Your task to perform on an android device: What's a goodrestaurant in Austin? Image 0: 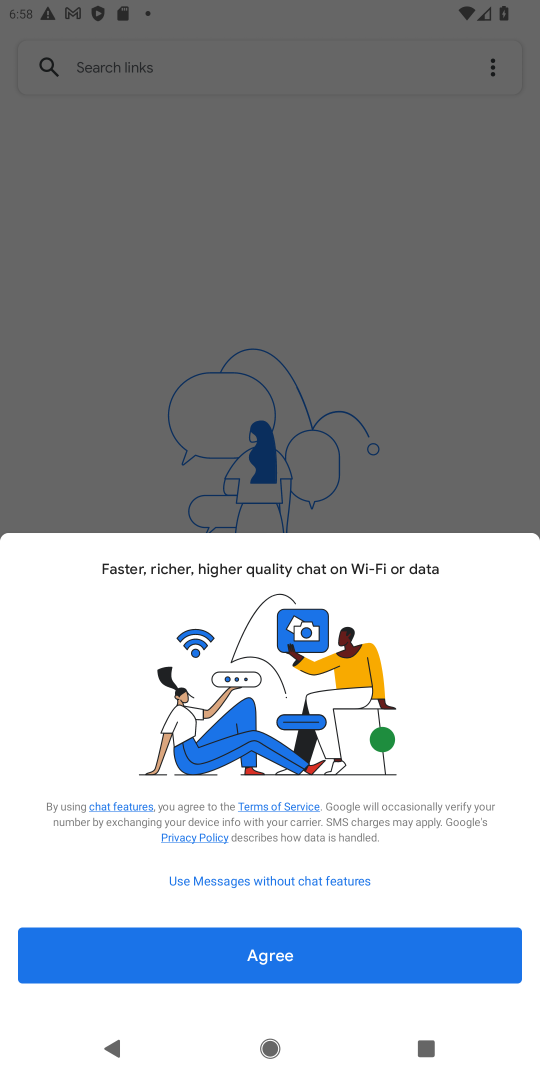
Step 0: press home button
Your task to perform on an android device: What's a goodrestaurant in Austin? Image 1: 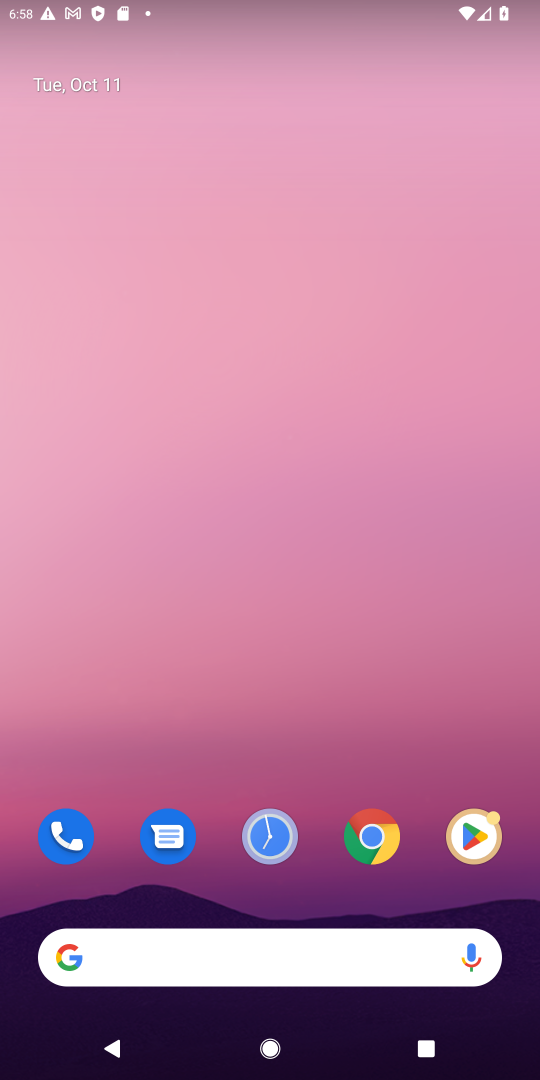
Step 1: click (370, 840)
Your task to perform on an android device: What's a goodrestaurant in Austin? Image 2: 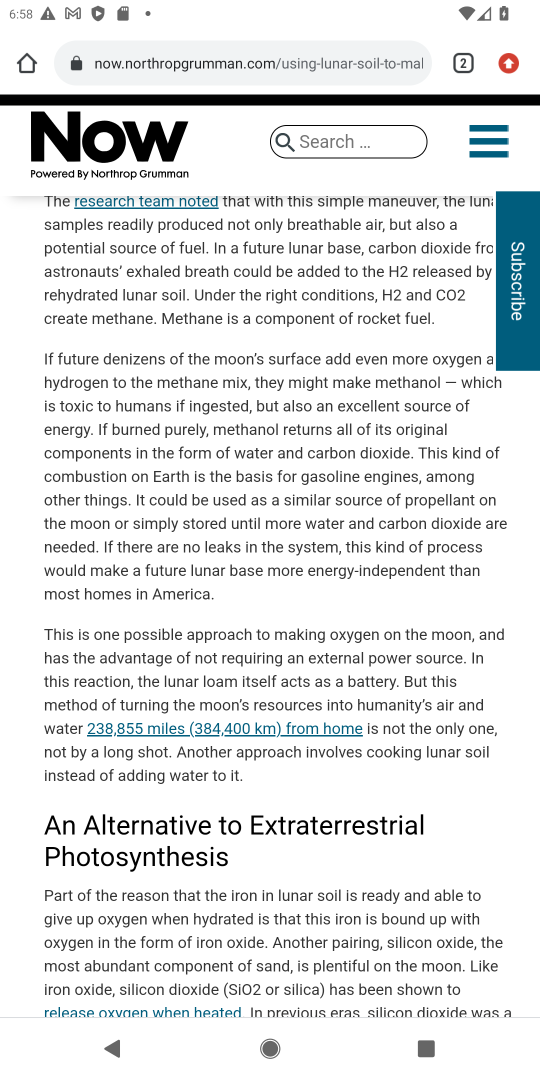
Step 2: click (232, 47)
Your task to perform on an android device: What's a goodrestaurant in Austin? Image 3: 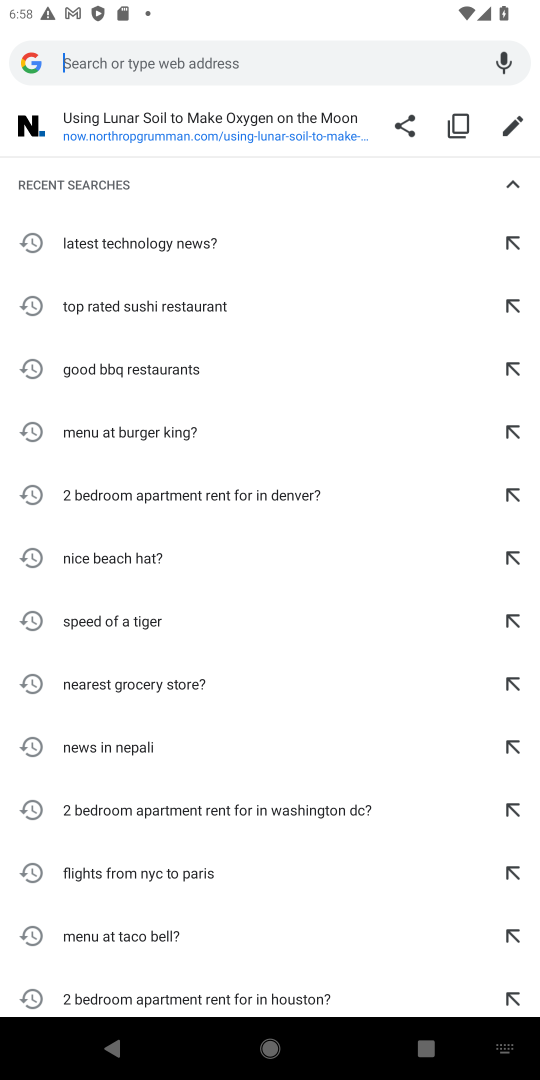
Step 3: type "goodrestaurant in Austin?"
Your task to perform on an android device: What's a goodrestaurant in Austin? Image 4: 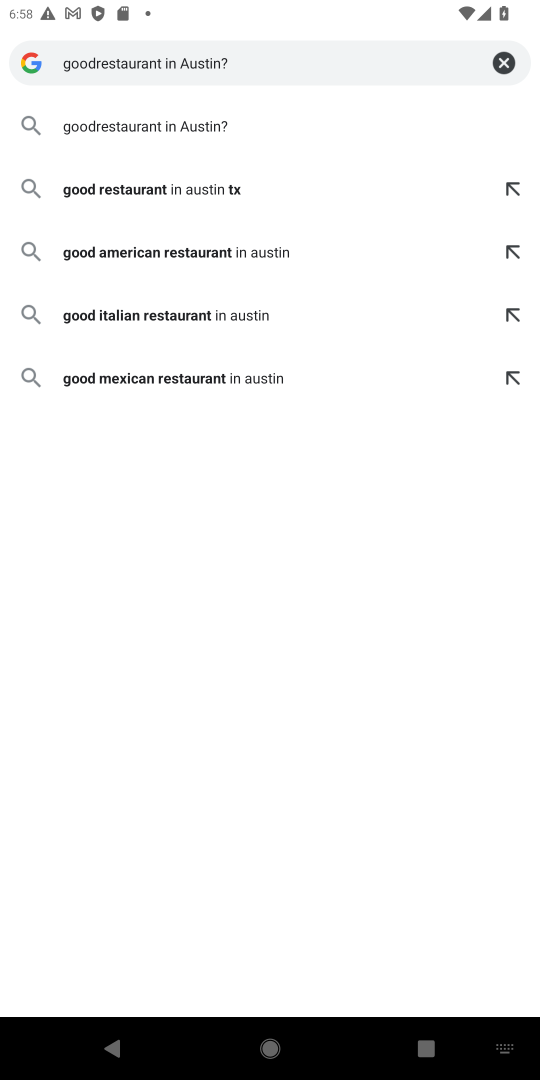
Step 4: click (151, 116)
Your task to perform on an android device: What's a goodrestaurant in Austin? Image 5: 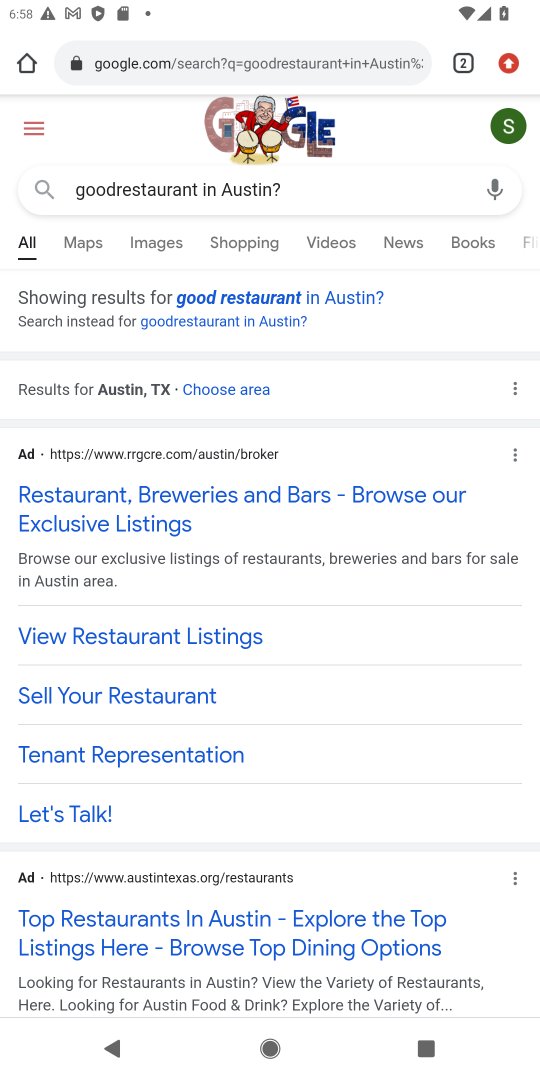
Step 5: click (291, 290)
Your task to perform on an android device: What's a goodrestaurant in Austin? Image 6: 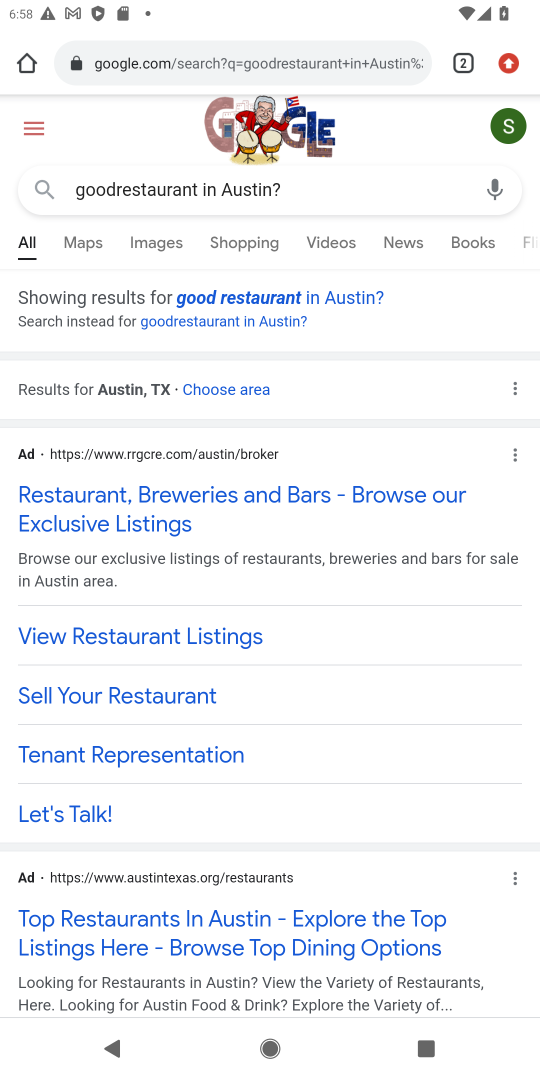
Step 6: click (289, 291)
Your task to perform on an android device: What's a goodrestaurant in Austin? Image 7: 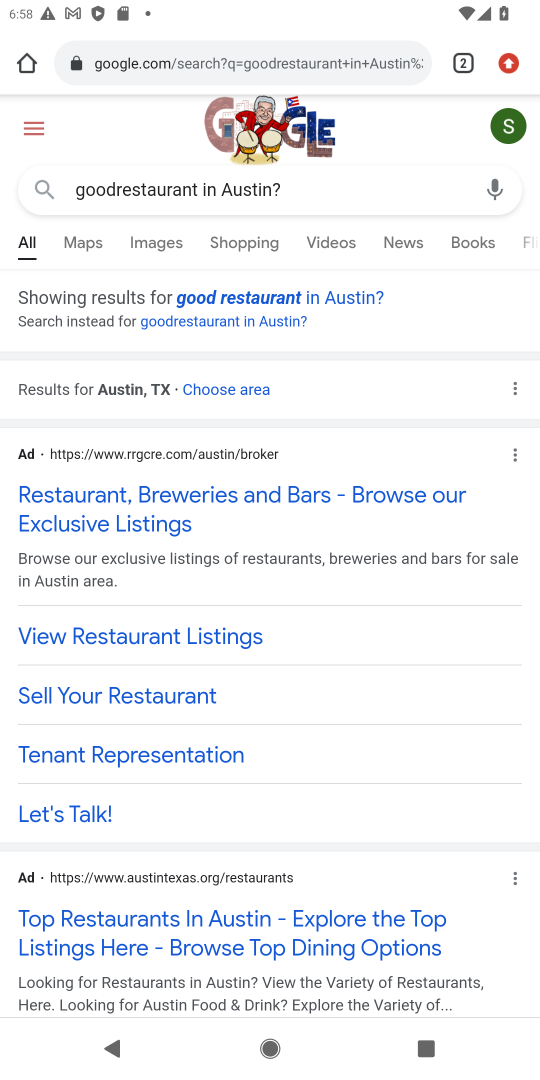
Step 7: click (246, 294)
Your task to perform on an android device: What's a goodrestaurant in Austin? Image 8: 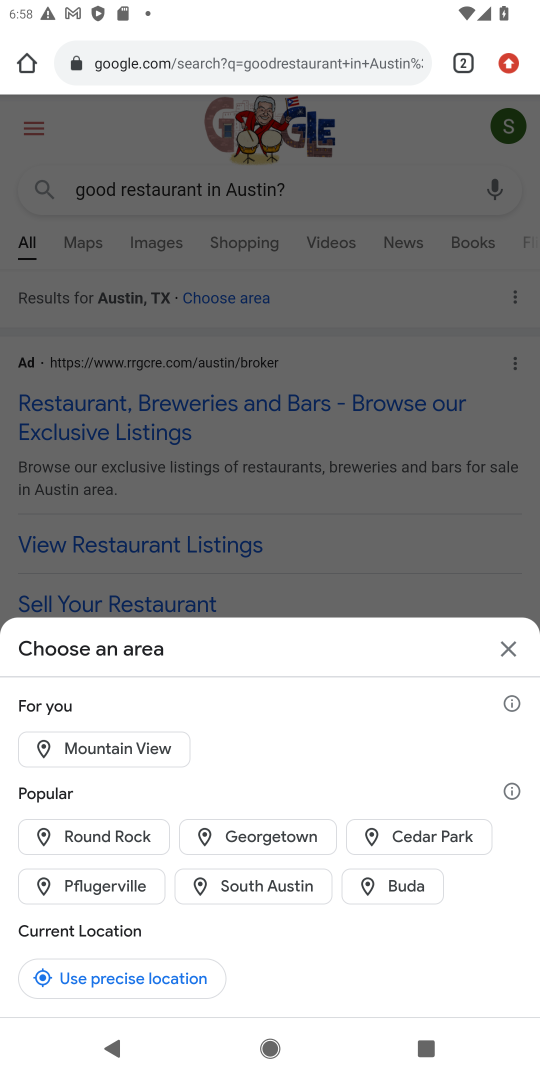
Step 8: click (507, 642)
Your task to perform on an android device: What's a goodrestaurant in Austin? Image 9: 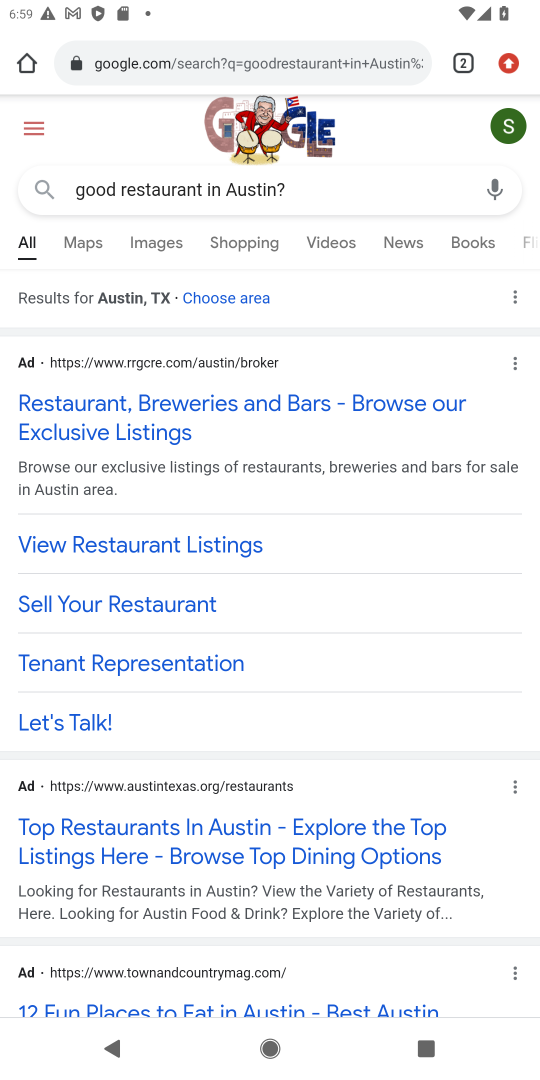
Step 9: click (194, 844)
Your task to perform on an android device: What's a goodrestaurant in Austin? Image 10: 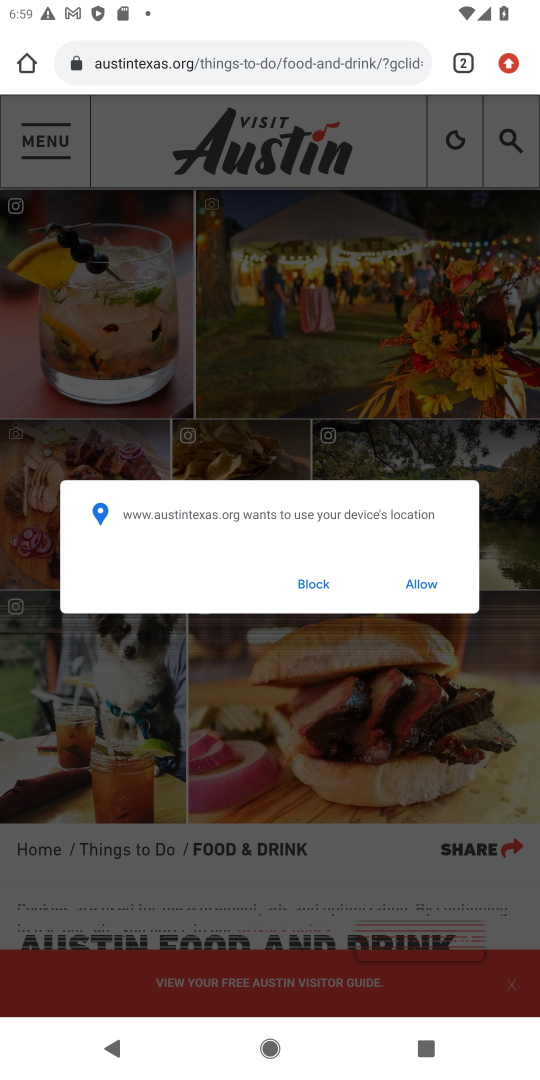
Step 10: click (304, 578)
Your task to perform on an android device: What's a goodrestaurant in Austin? Image 11: 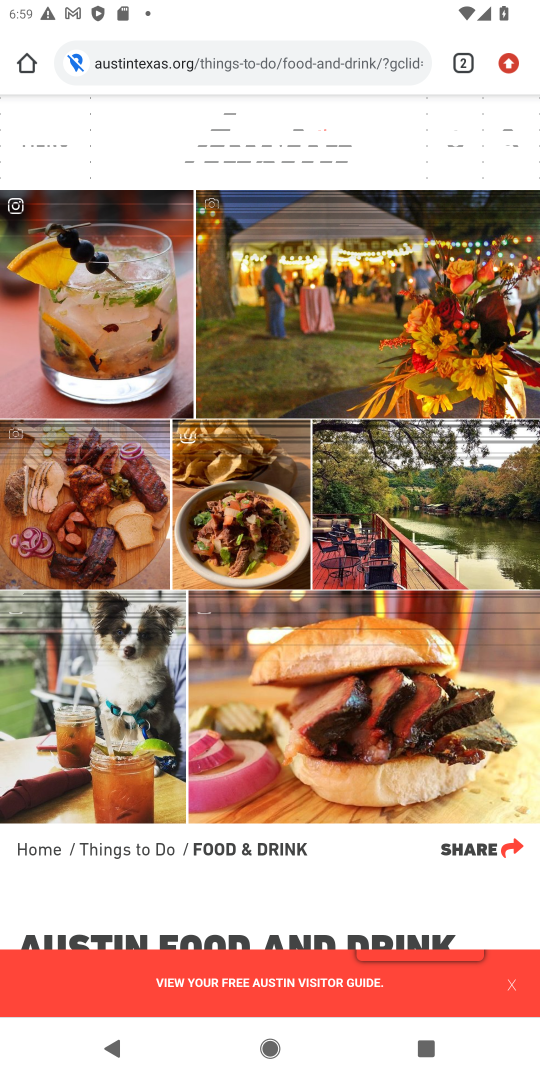
Step 11: task complete